Your task to perform on an android device: Add usb-c to the cart on newegg Image 0: 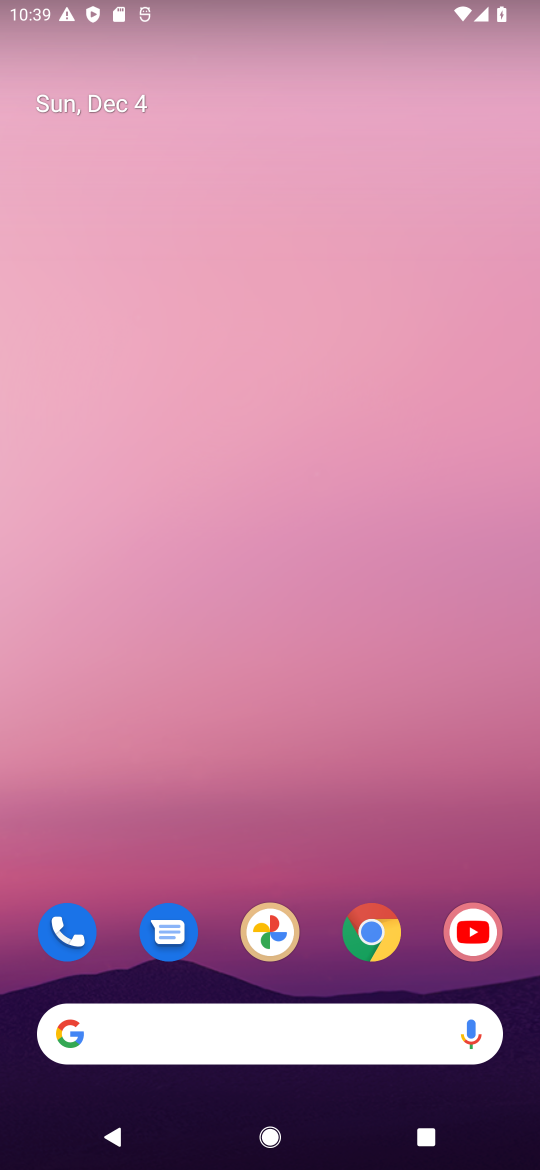
Step 0: click (373, 936)
Your task to perform on an android device: Add usb-c to the cart on newegg Image 1: 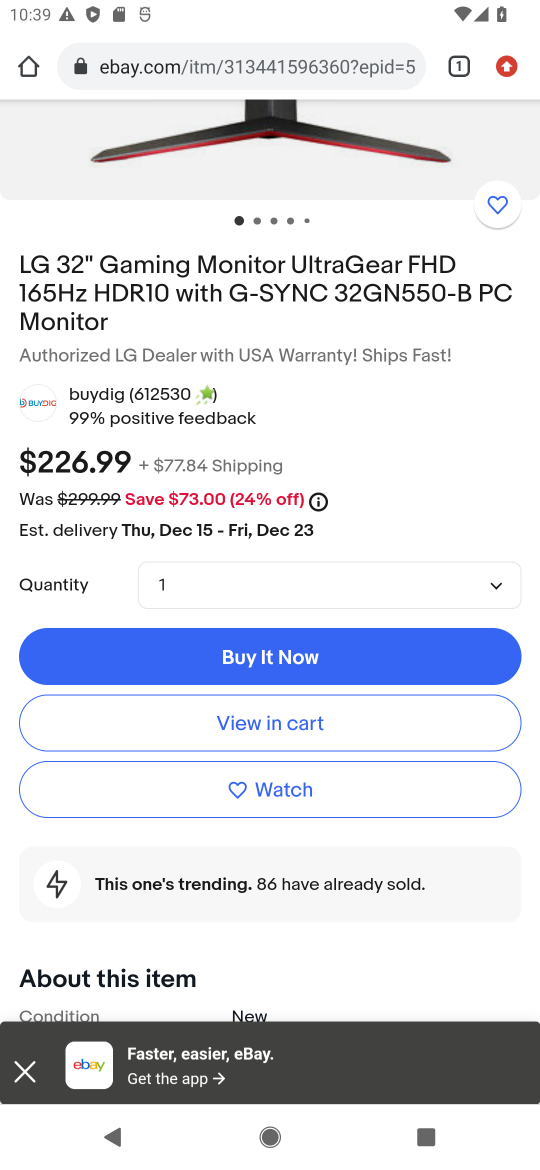
Step 1: click (311, 63)
Your task to perform on an android device: Add usb-c to the cart on newegg Image 2: 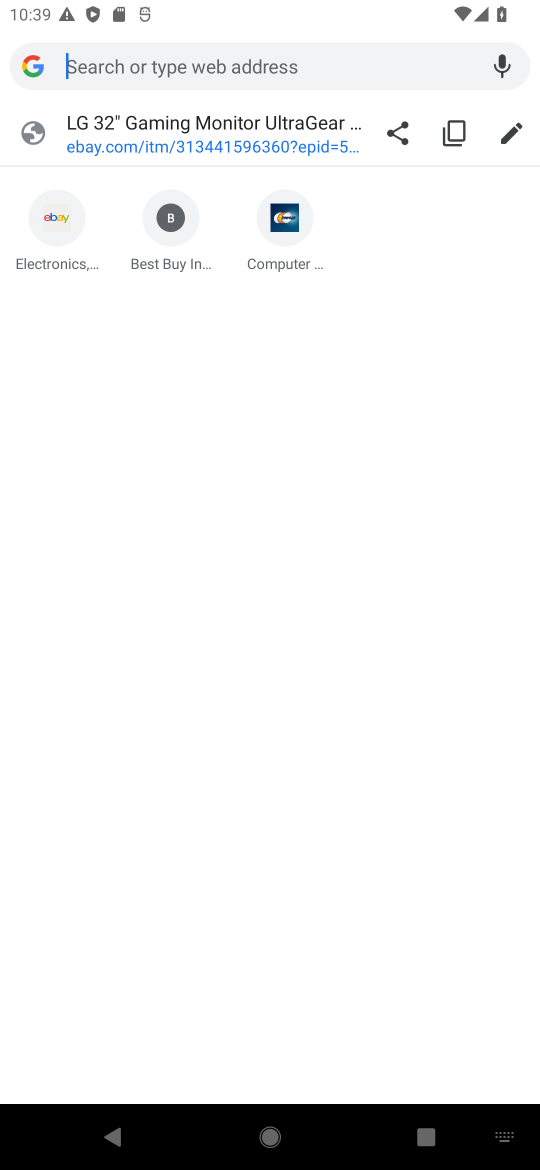
Step 2: type "newegg"
Your task to perform on an android device: Add usb-c to the cart on newegg Image 3: 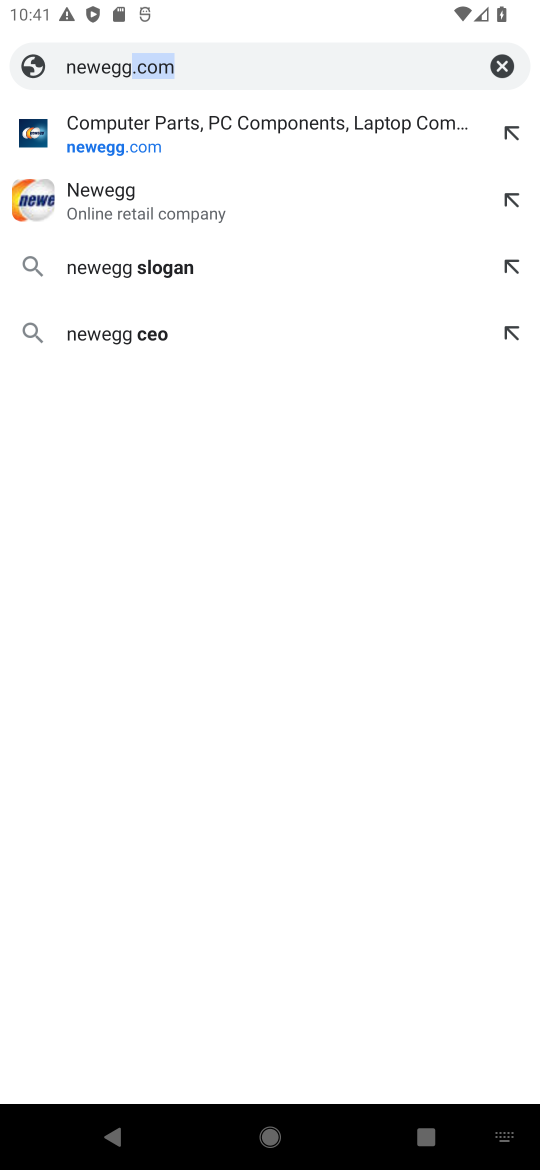
Step 3: click (154, 209)
Your task to perform on an android device: Add usb-c to the cart on newegg Image 4: 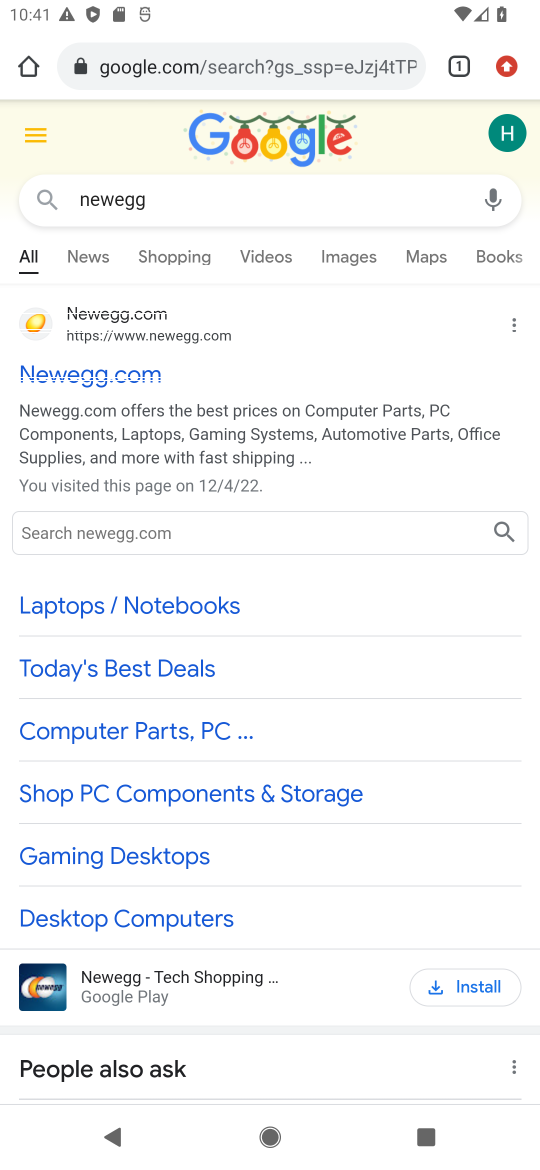
Step 4: click (95, 374)
Your task to perform on an android device: Add usb-c to the cart on newegg Image 5: 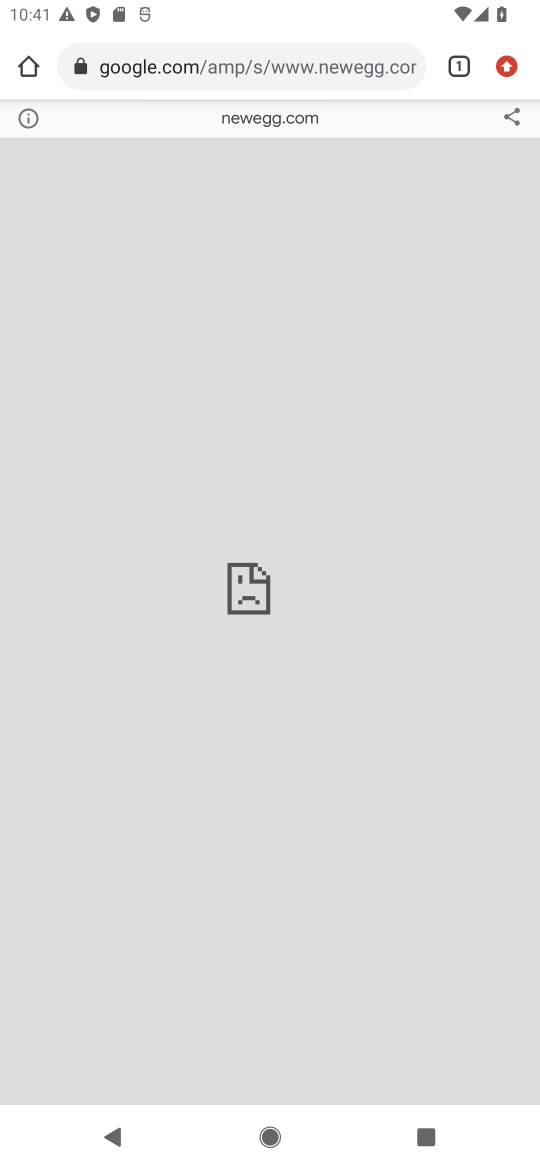
Step 5: type "usb-c"
Your task to perform on an android device: Add usb-c to the cart on newegg Image 6: 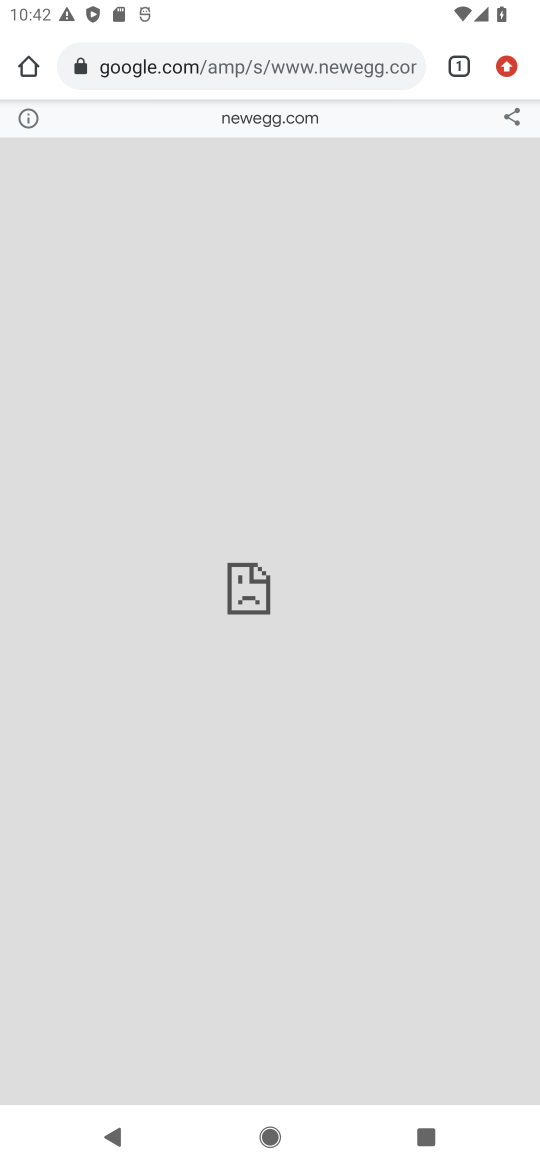
Step 6: task complete